Your task to perform on an android device: see creations saved in the google photos Image 0: 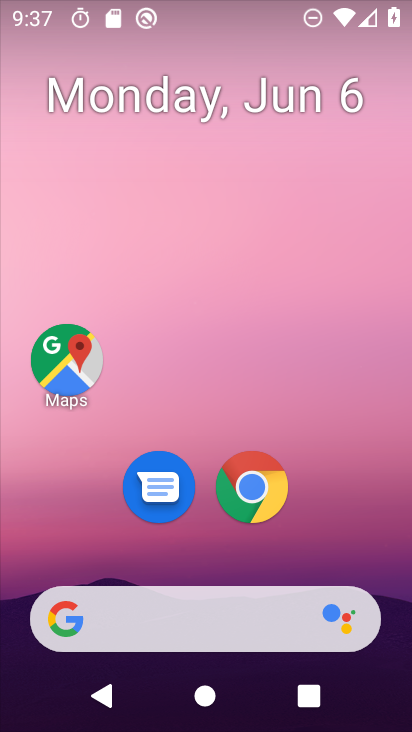
Step 0: drag from (405, 633) to (30, 360)
Your task to perform on an android device: see creations saved in the google photos Image 1: 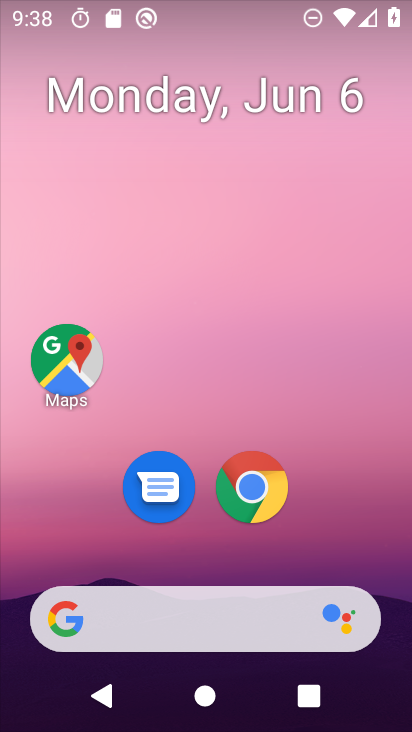
Step 1: click (249, 649)
Your task to perform on an android device: see creations saved in the google photos Image 2: 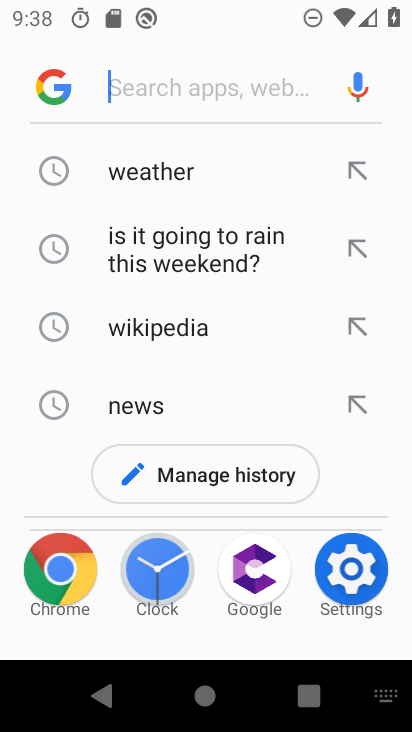
Step 2: press home button
Your task to perform on an android device: see creations saved in the google photos Image 3: 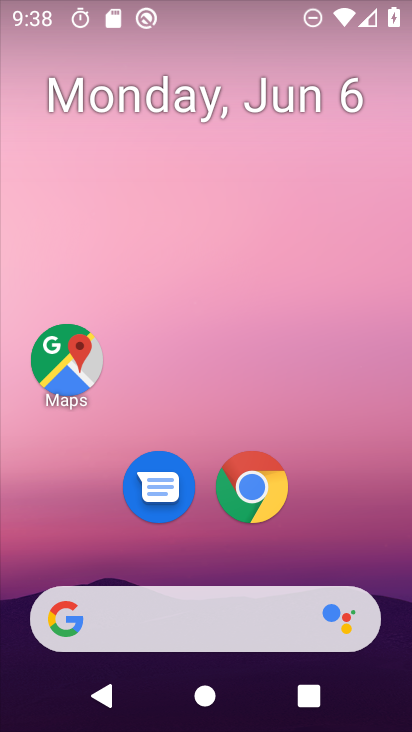
Step 3: drag from (395, 630) to (305, 47)
Your task to perform on an android device: see creations saved in the google photos Image 4: 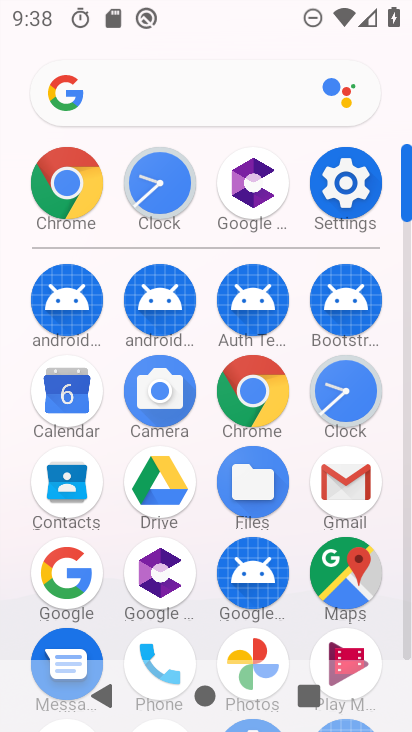
Step 4: click (253, 637)
Your task to perform on an android device: see creations saved in the google photos Image 5: 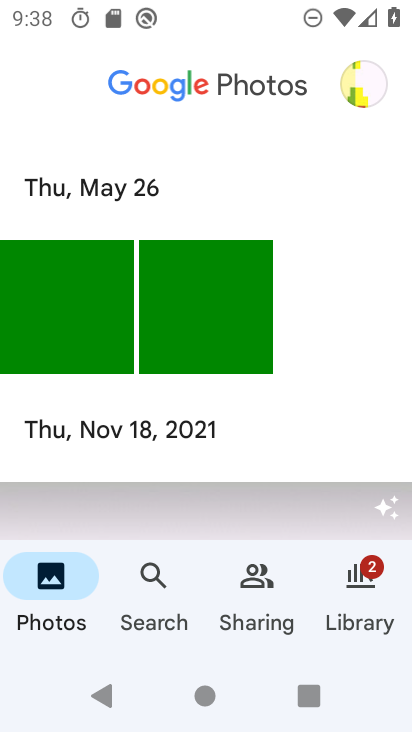
Step 5: click (164, 598)
Your task to perform on an android device: see creations saved in the google photos Image 6: 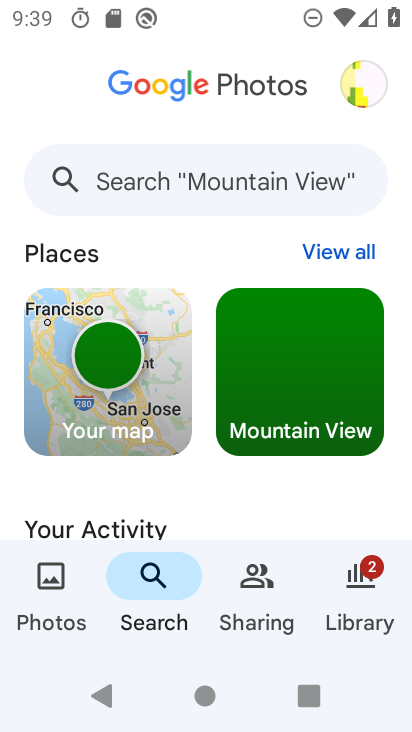
Step 6: click (185, 198)
Your task to perform on an android device: see creations saved in the google photos Image 7: 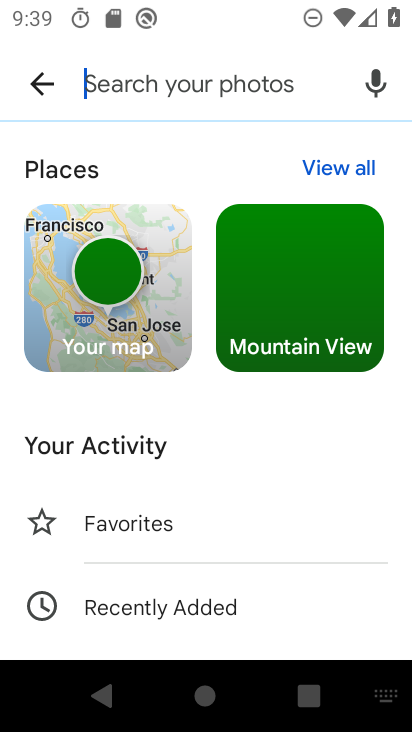
Step 7: drag from (141, 604) to (174, 107)
Your task to perform on an android device: see creations saved in the google photos Image 8: 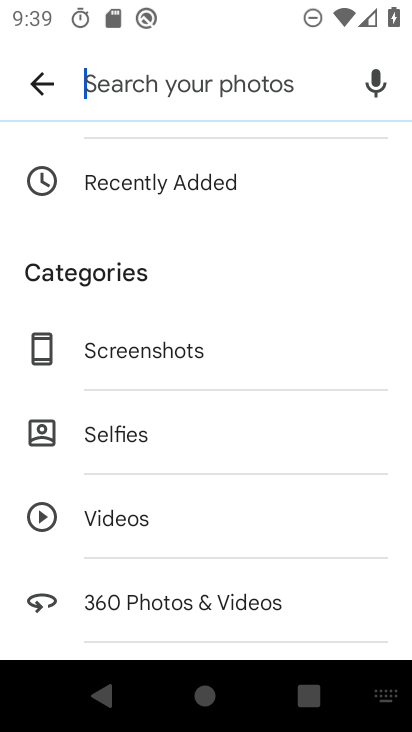
Step 8: drag from (142, 590) to (205, 165)
Your task to perform on an android device: see creations saved in the google photos Image 9: 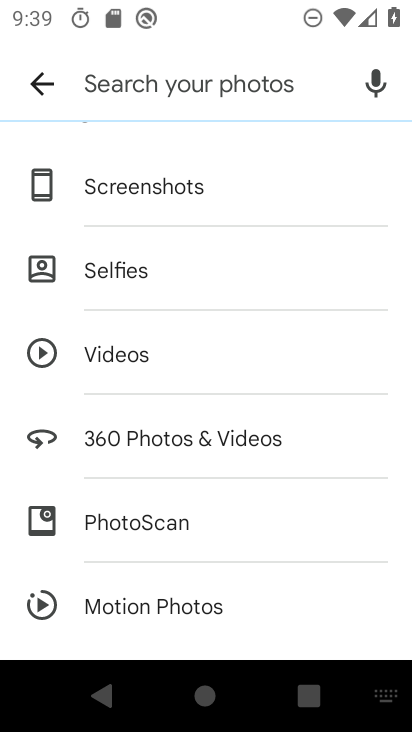
Step 9: drag from (121, 566) to (155, 144)
Your task to perform on an android device: see creations saved in the google photos Image 10: 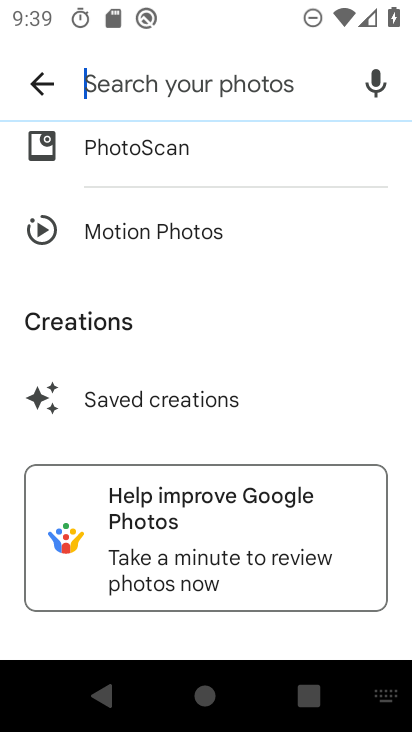
Step 10: click (120, 383)
Your task to perform on an android device: see creations saved in the google photos Image 11: 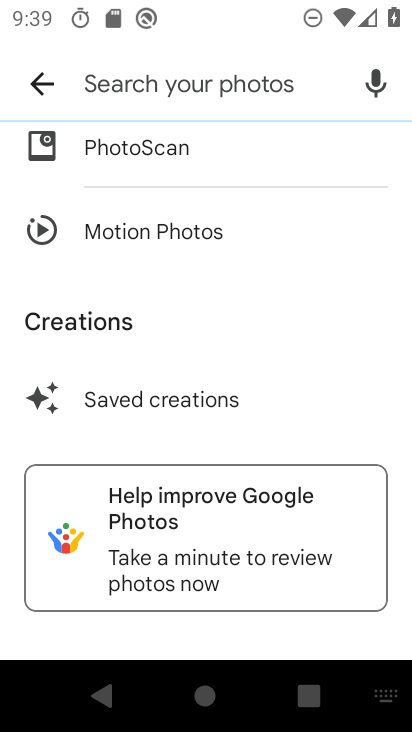
Step 11: click (129, 398)
Your task to perform on an android device: see creations saved in the google photos Image 12: 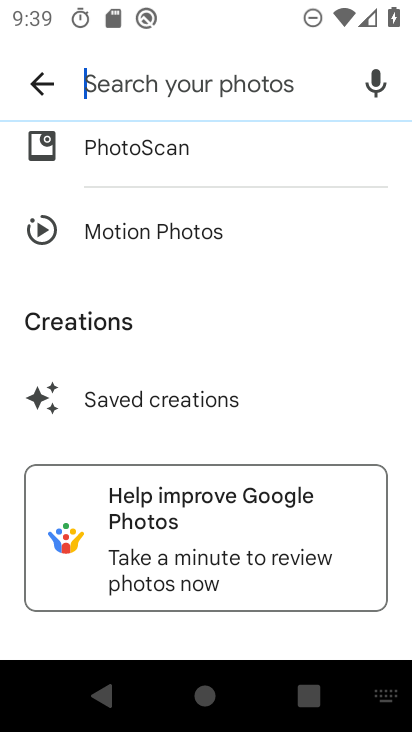
Step 12: click (147, 396)
Your task to perform on an android device: see creations saved in the google photos Image 13: 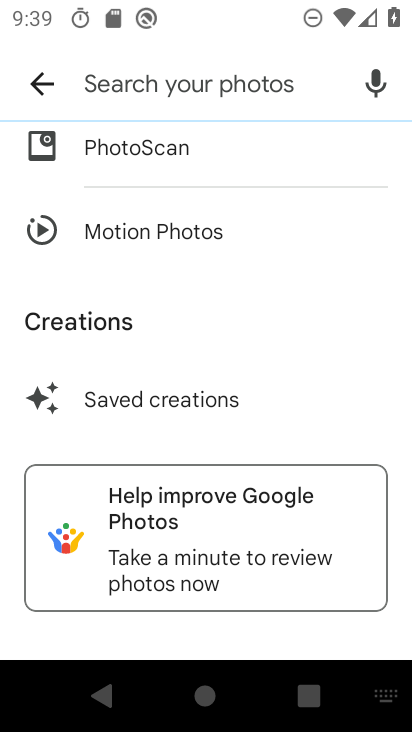
Step 13: click (147, 396)
Your task to perform on an android device: see creations saved in the google photos Image 14: 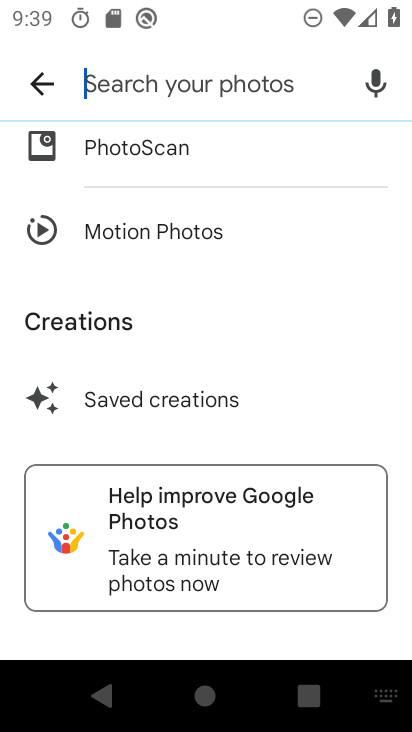
Step 14: click (147, 396)
Your task to perform on an android device: see creations saved in the google photos Image 15: 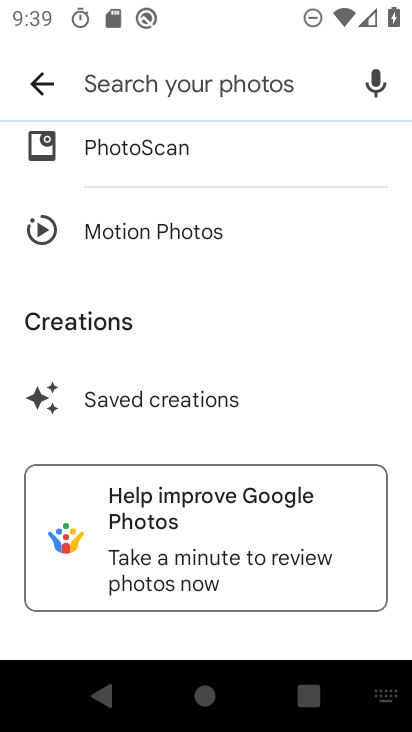
Step 15: click (147, 396)
Your task to perform on an android device: see creations saved in the google photos Image 16: 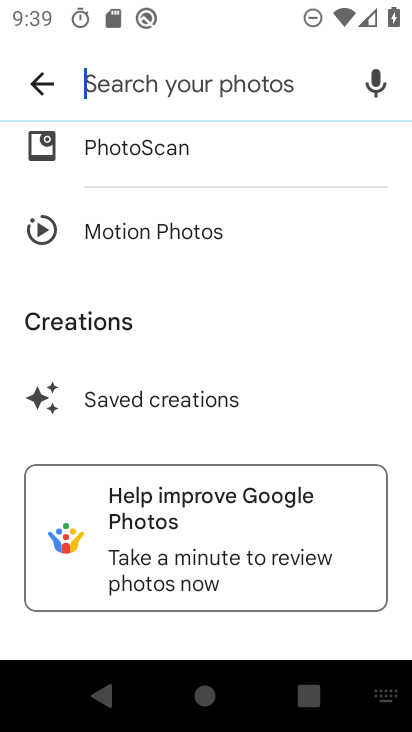
Step 16: task complete